Your task to perform on an android device: Go to wifi settings Image 0: 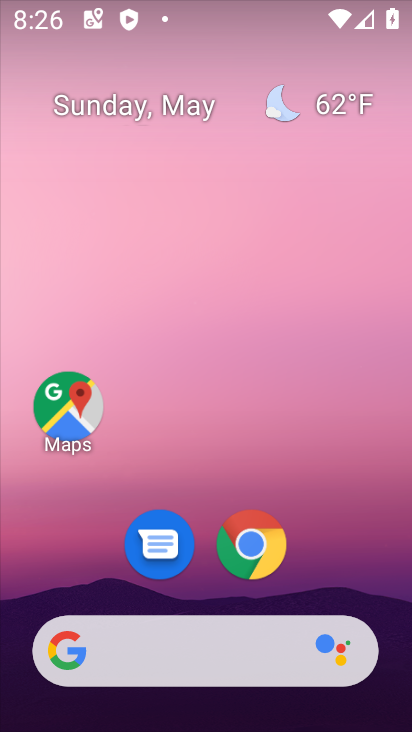
Step 0: drag from (310, 566) to (275, 0)
Your task to perform on an android device: Go to wifi settings Image 1: 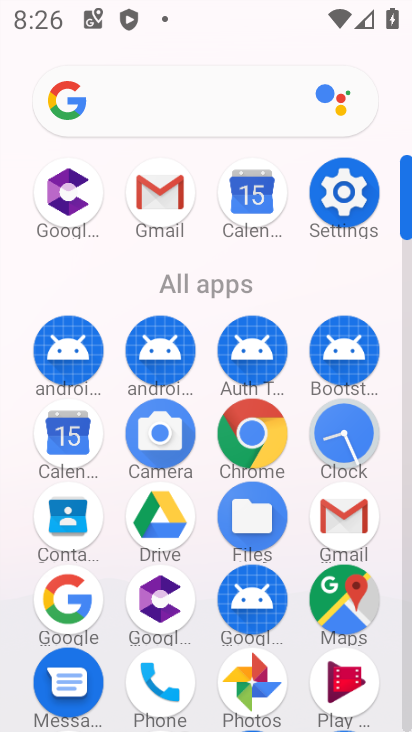
Step 1: click (341, 192)
Your task to perform on an android device: Go to wifi settings Image 2: 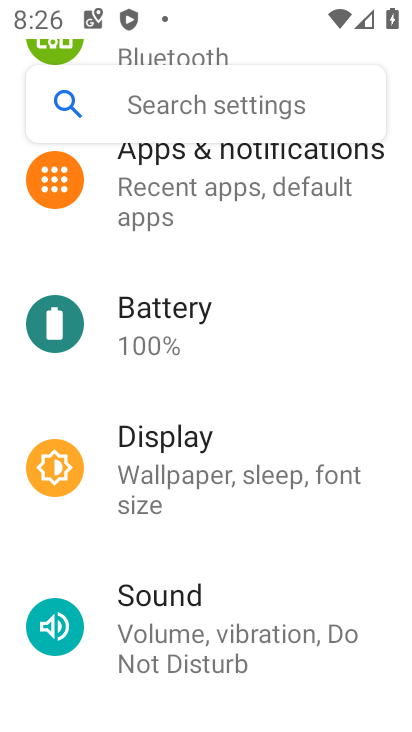
Step 2: drag from (223, 194) to (219, 461)
Your task to perform on an android device: Go to wifi settings Image 3: 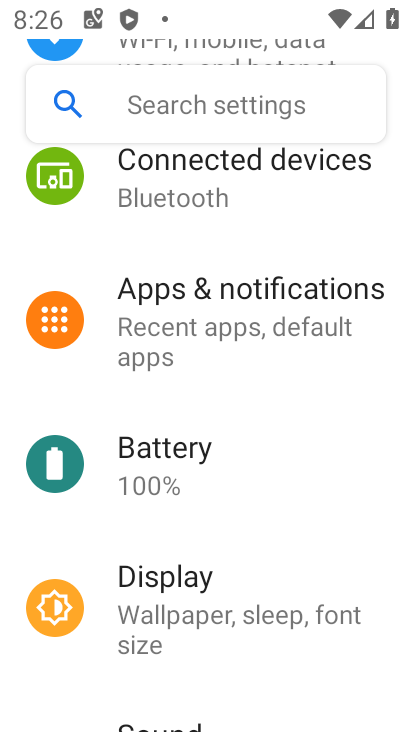
Step 3: drag from (223, 254) to (191, 544)
Your task to perform on an android device: Go to wifi settings Image 4: 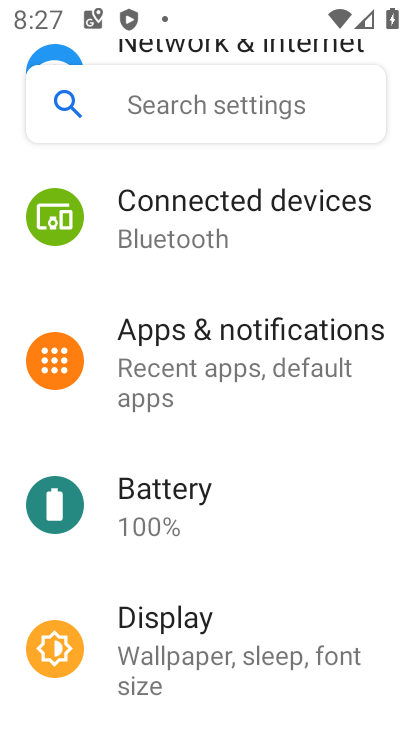
Step 4: drag from (221, 334) to (219, 632)
Your task to perform on an android device: Go to wifi settings Image 5: 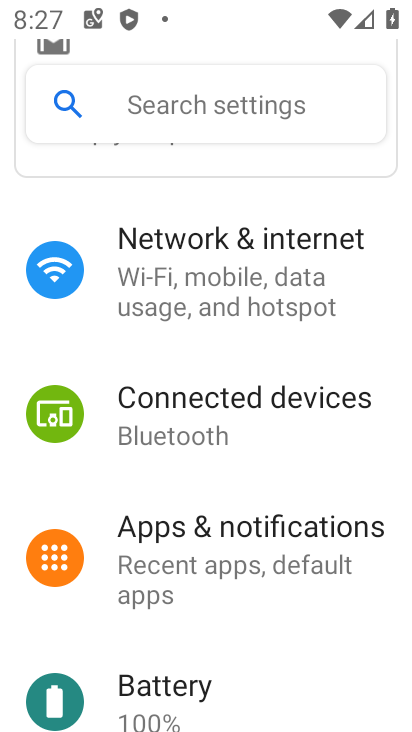
Step 5: click (236, 296)
Your task to perform on an android device: Go to wifi settings Image 6: 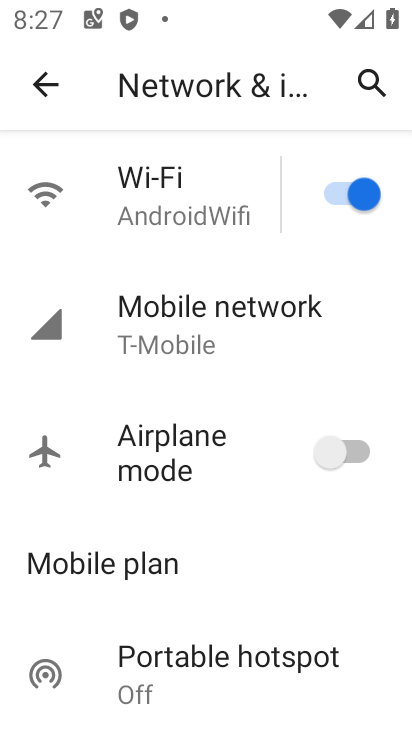
Step 6: click (168, 200)
Your task to perform on an android device: Go to wifi settings Image 7: 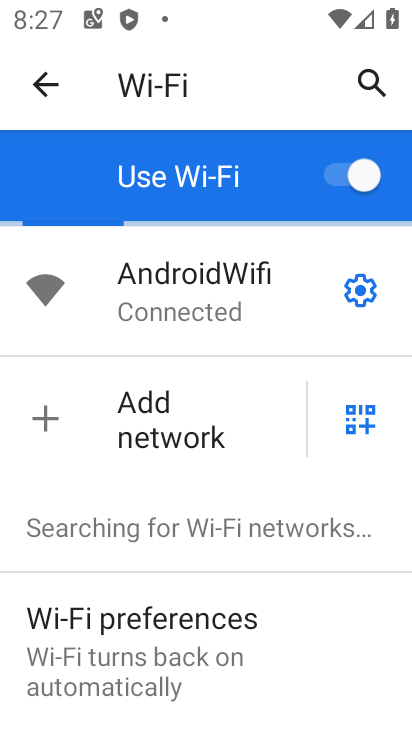
Step 7: task complete